Your task to perform on an android device: Go to Maps Image 0: 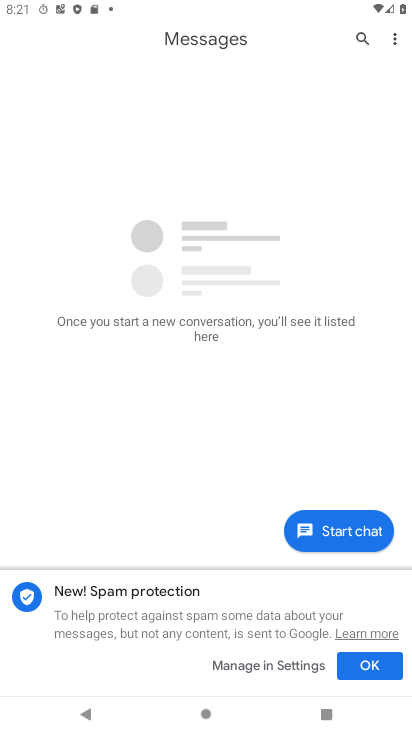
Step 0: press home button
Your task to perform on an android device: Go to Maps Image 1: 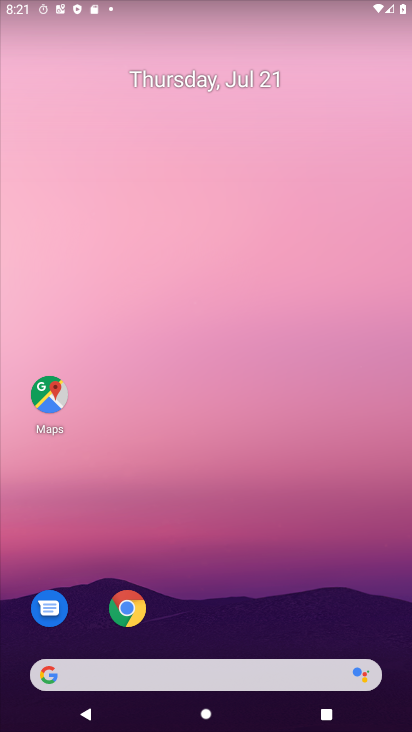
Step 1: click (66, 401)
Your task to perform on an android device: Go to Maps Image 2: 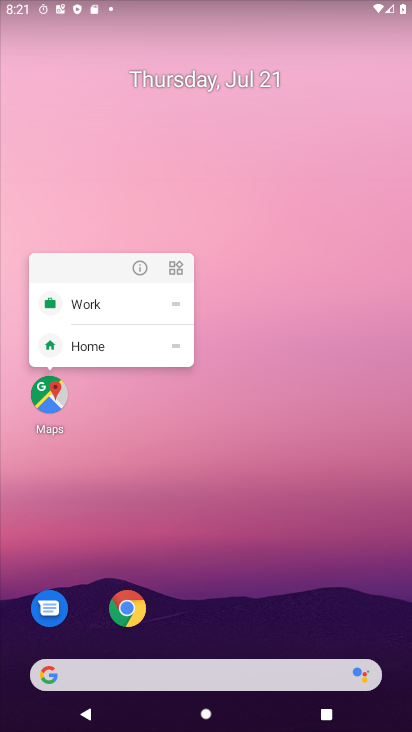
Step 2: click (52, 385)
Your task to perform on an android device: Go to Maps Image 3: 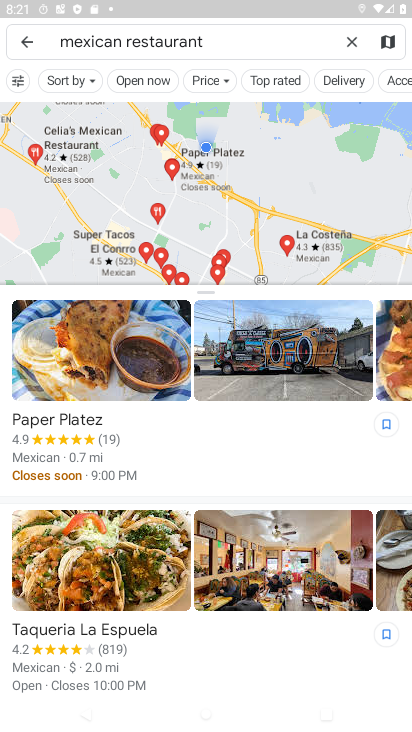
Step 3: task complete